Your task to perform on an android device: Open wifi settings Image 0: 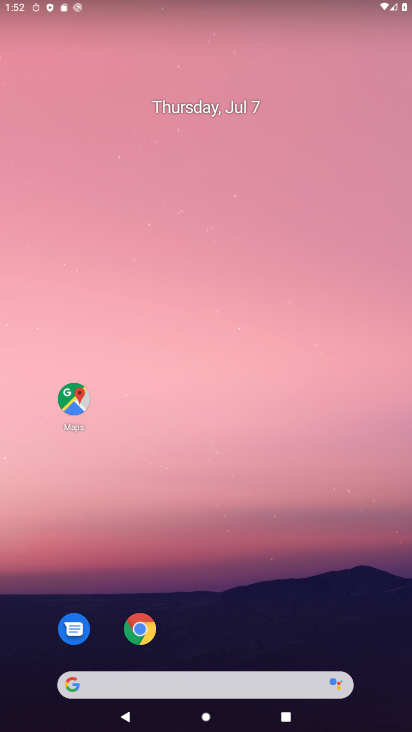
Step 0: drag from (193, 39) to (174, 616)
Your task to perform on an android device: Open wifi settings Image 1: 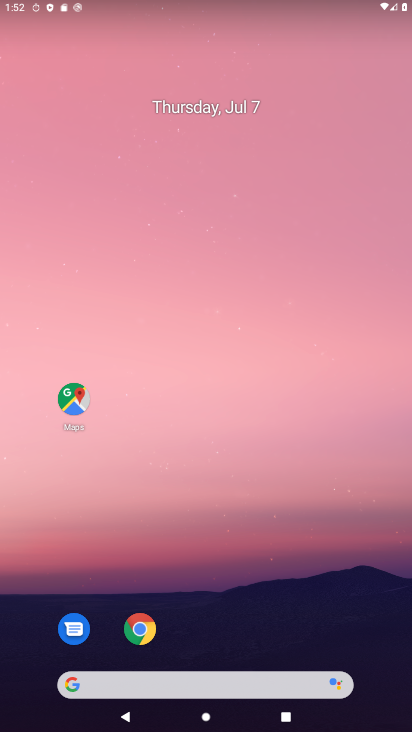
Step 1: task complete